Your task to perform on an android device: Search for "panasonic triple a" on target.com, select the first entry, and add it to the cart. Image 0: 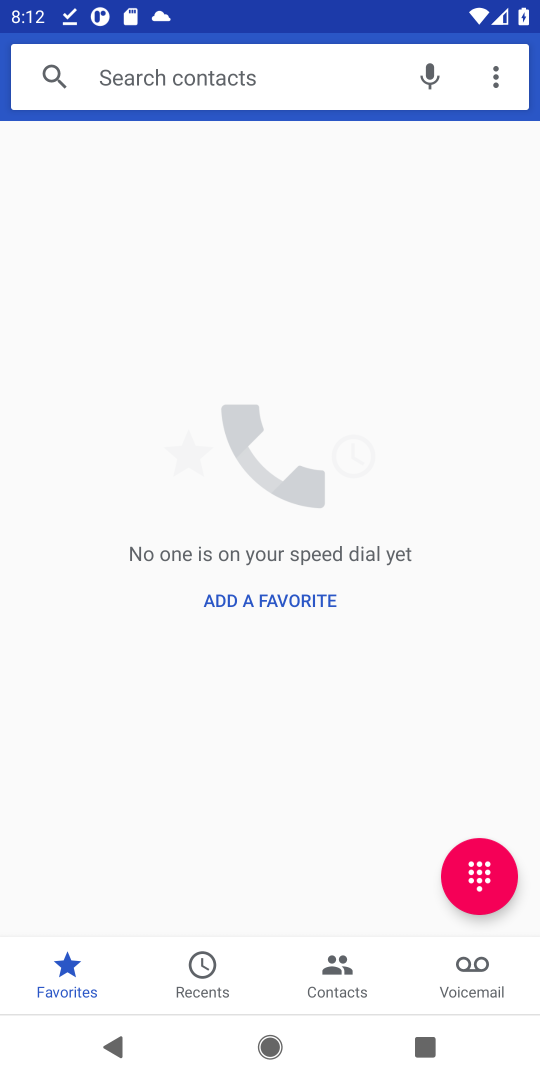
Step 0: type "target"
Your task to perform on an android device: Search for "panasonic triple a" on target.com, select the first entry, and add it to the cart. Image 1: 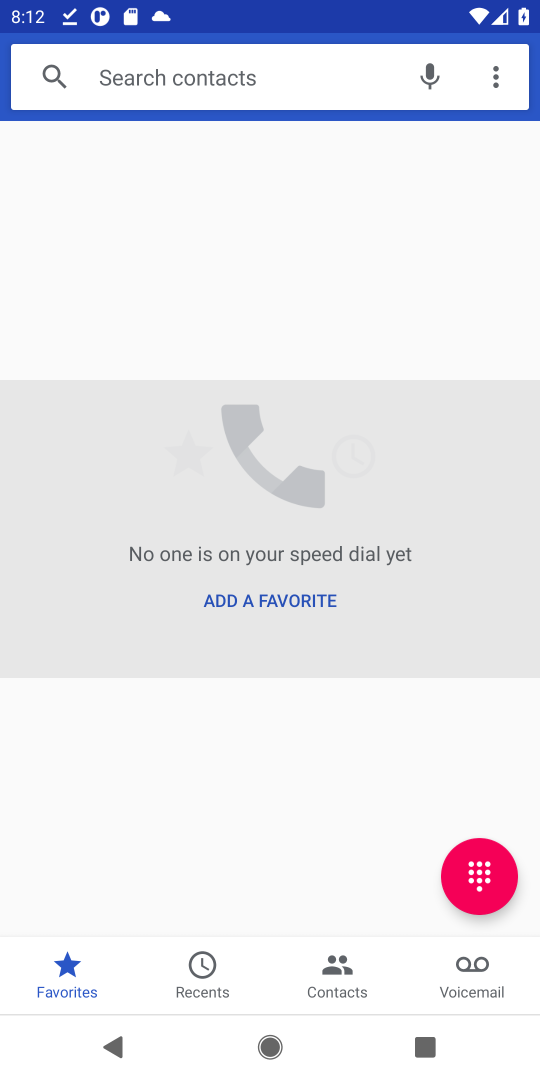
Step 1: press home button
Your task to perform on an android device: Search for "panasonic triple a" on target.com, select the first entry, and add it to the cart. Image 2: 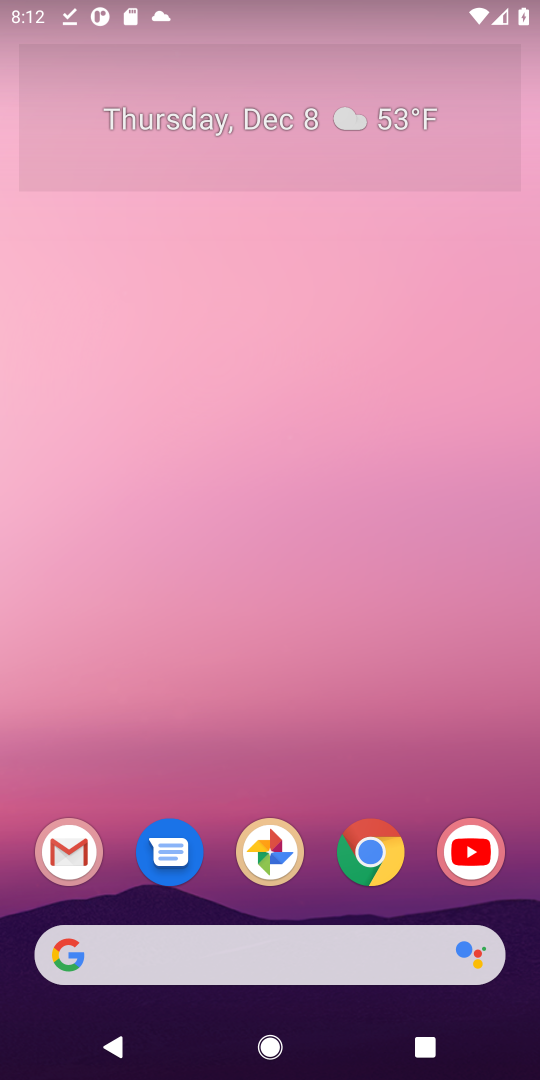
Step 2: click (305, 964)
Your task to perform on an android device: Search for "panasonic triple a" on target.com, select the first entry, and add it to the cart. Image 3: 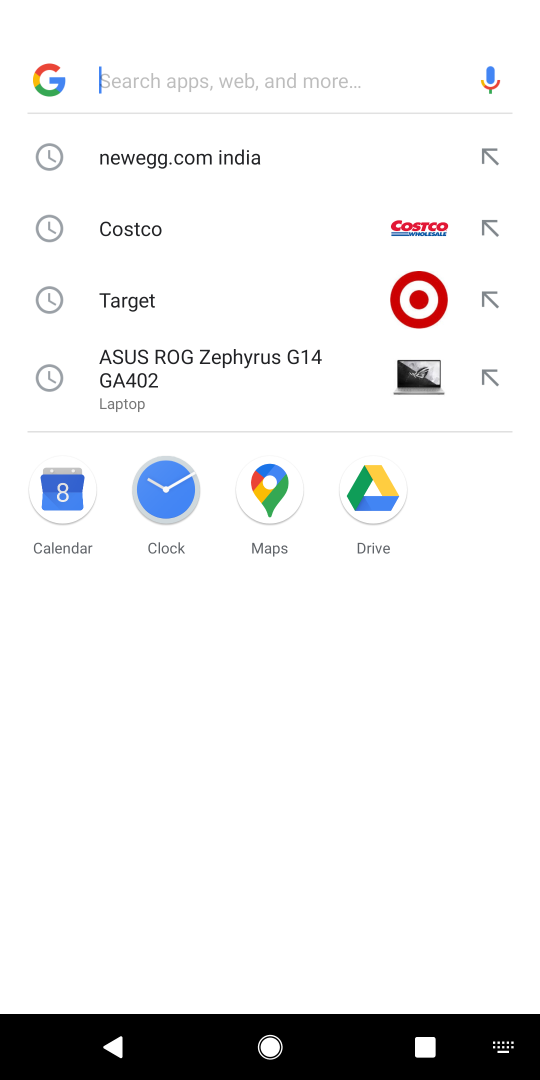
Step 3: type "target"
Your task to perform on an android device: Search for "panasonic triple a" on target.com, select the first entry, and add it to the cart. Image 4: 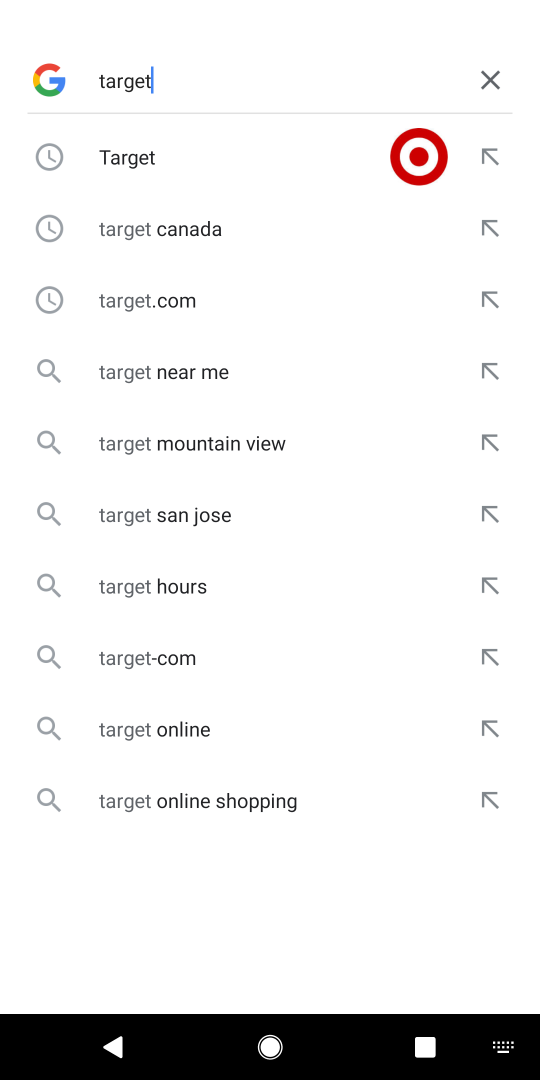
Step 4: click (177, 175)
Your task to perform on an android device: Search for "panasonic triple a" on target.com, select the first entry, and add it to the cart. Image 5: 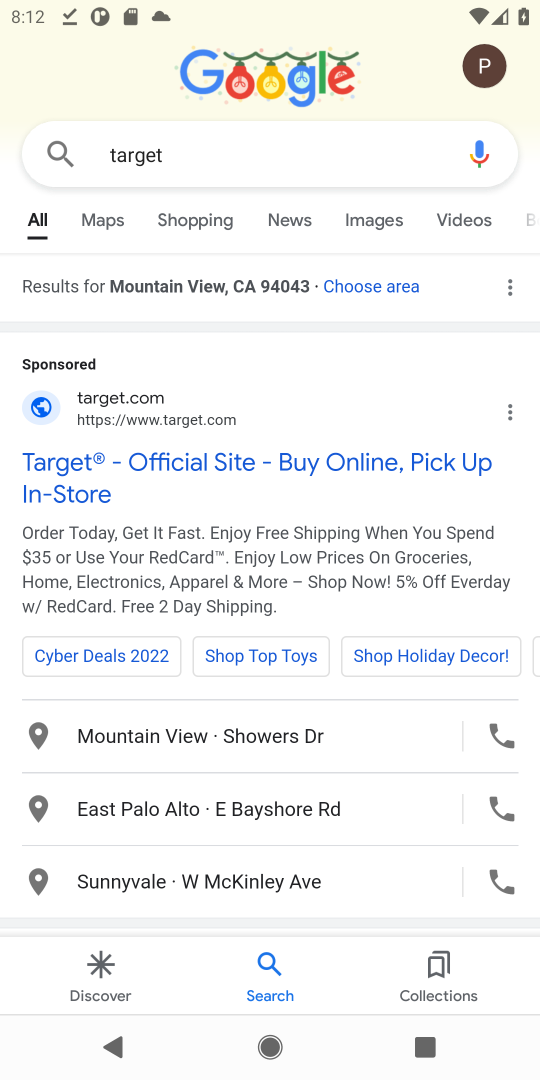
Step 5: click (95, 462)
Your task to perform on an android device: Search for "panasonic triple a" on target.com, select the first entry, and add it to the cart. Image 6: 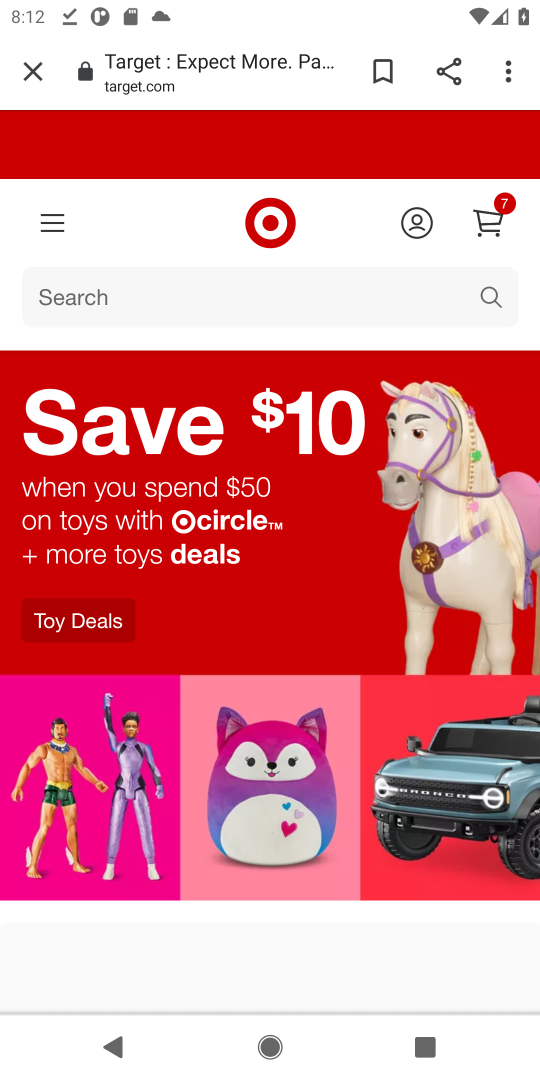
Step 6: click (137, 311)
Your task to perform on an android device: Search for "panasonic triple a" on target.com, select the first entry, and add it to the cart. Image 7: 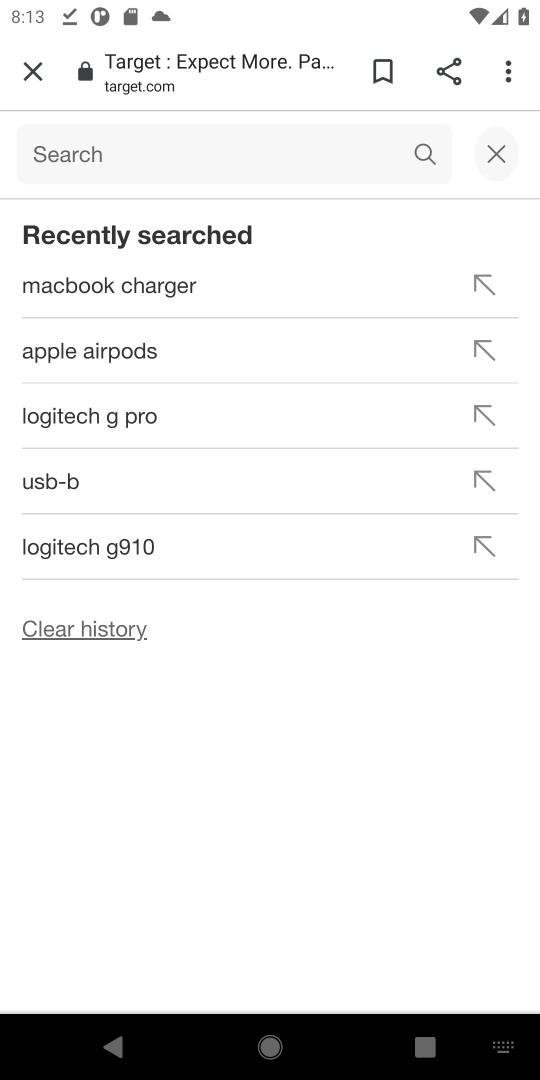
Step 7: type "panasonic triplwe a"
Your task to perform on an android device: Search for "panasonic triple a" on target.com, select the first entry, and add it to the cart. Image 8: 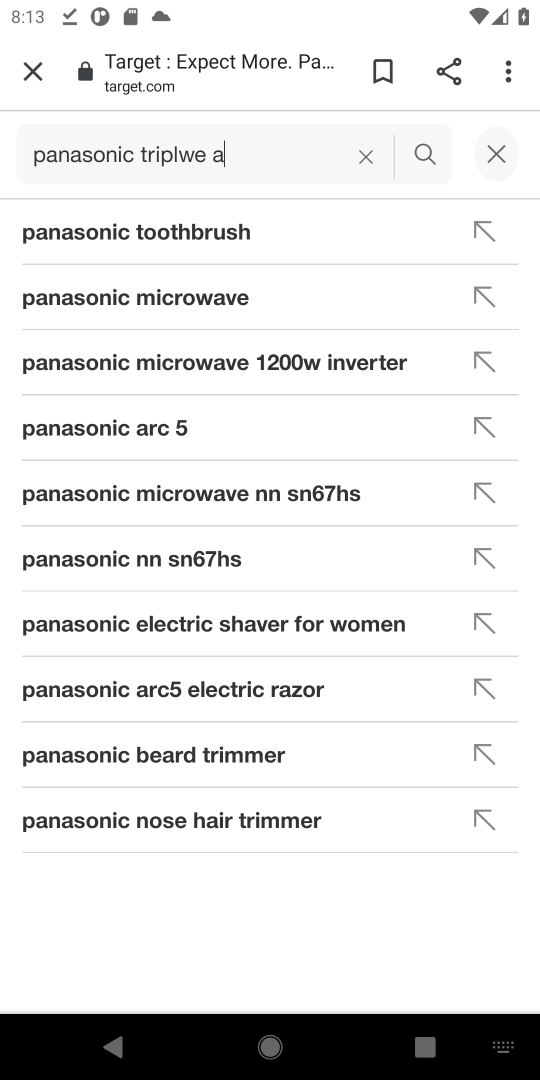
Step 8: click (429, 166)
Your task to perform on an android device: Search for "panasonic triple a" on target.com, select the first entry, and add it to the cart. Image 9: 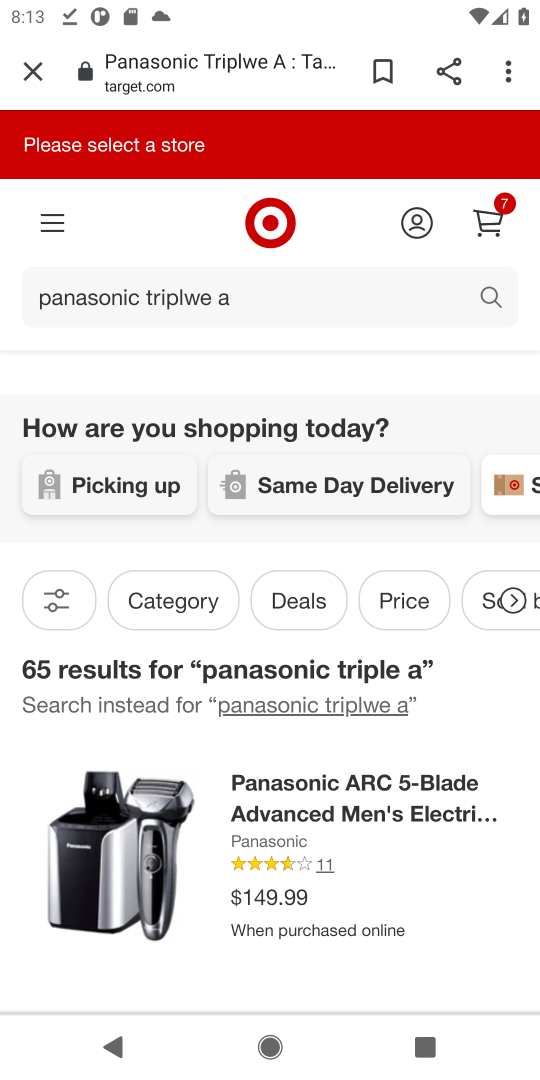
Step 9: click (329, 838)
Your task to perform on an android device: Search for "panasonic triple a" on target.com, select the first entry, and add it to the cart. Image 10: 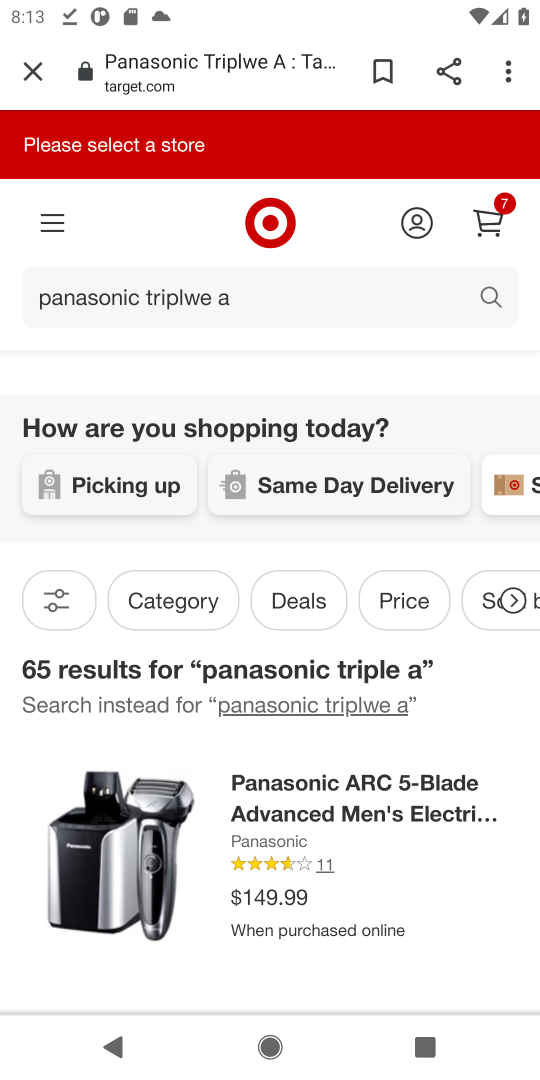
Step 10: drag from (387, 849) to (414, 452)
Your task to perform on an android device: Search for "panasonic triple a" on target.com, select the first entry, and add it to the cart. Image 11: 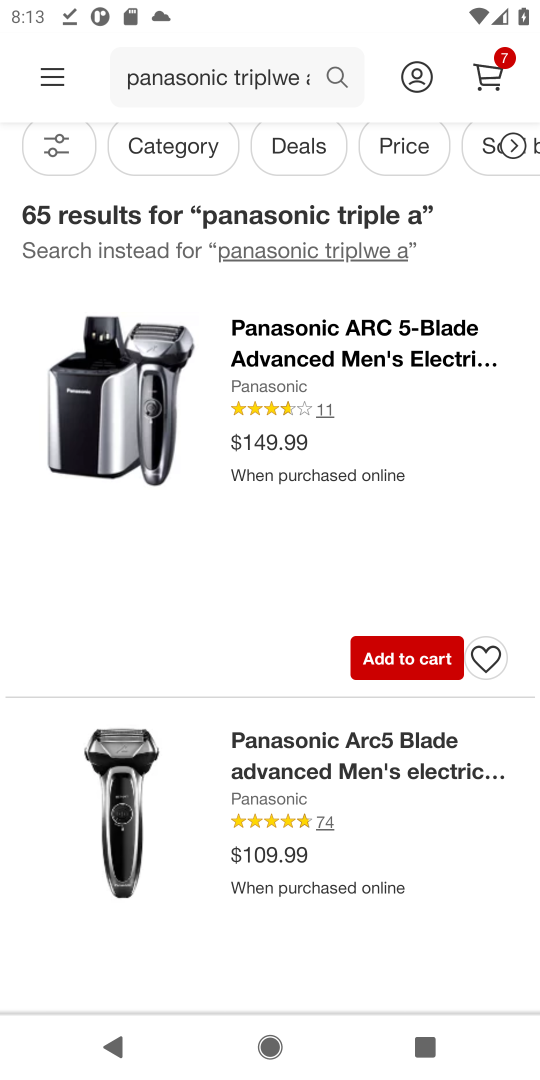
Step 11: click (400, 675)
Your task to perform on an android device: Search for "panasonic triple a" on target.com, select the first entry, and add it to the cart. Image 12: 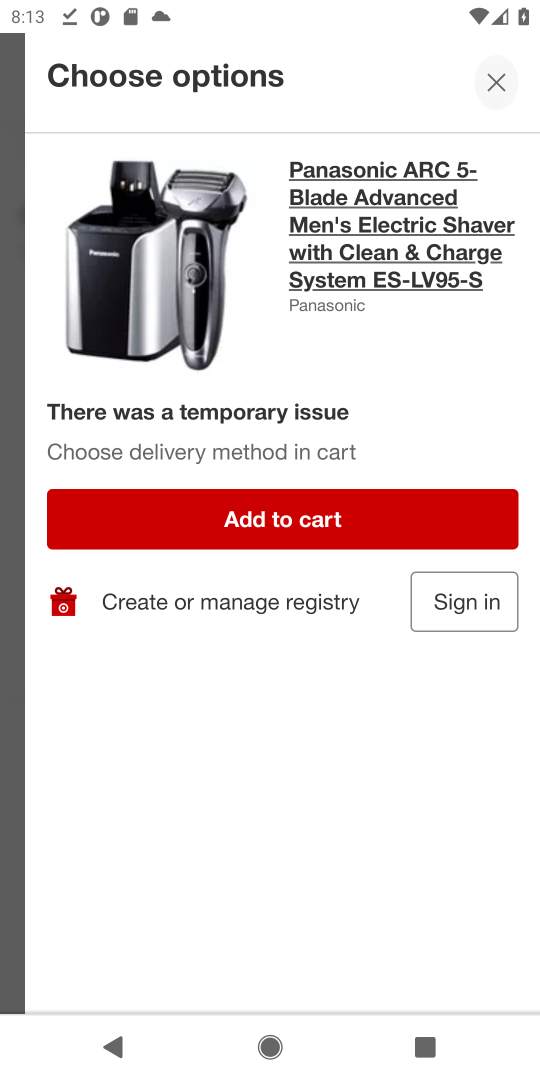
Step 12: task complete